Your task to perform on an android device: Go to internet settings Image 0: 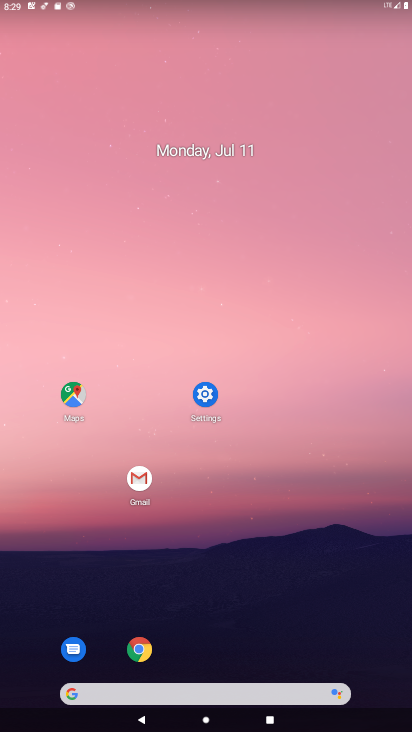
Step 0: click (204, 392)
Your task to perform on an android device: Go to internet settings Image 1: 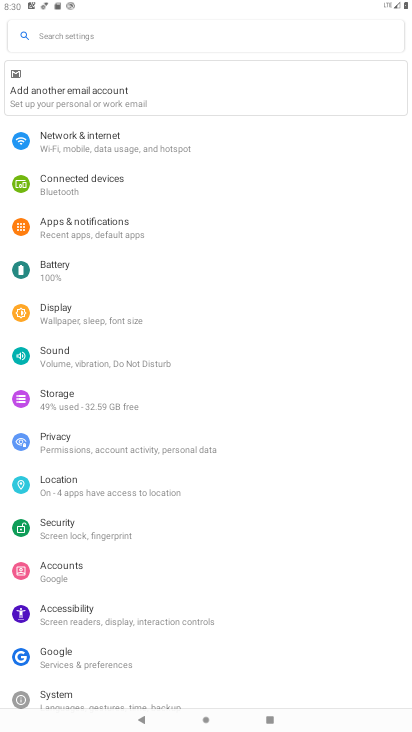
Step 1: click (91, 147)
Your task to perform on an android device: Go to internet settings Image 2: 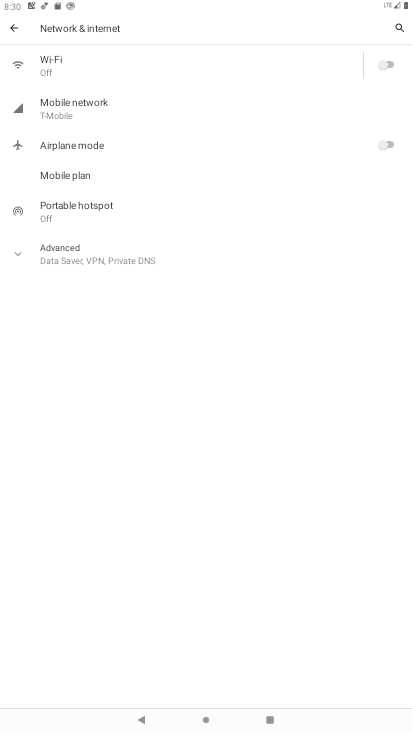
Step 2: click (71, 108)
Your task to perform on an android device: Go to internet settings Image 3: 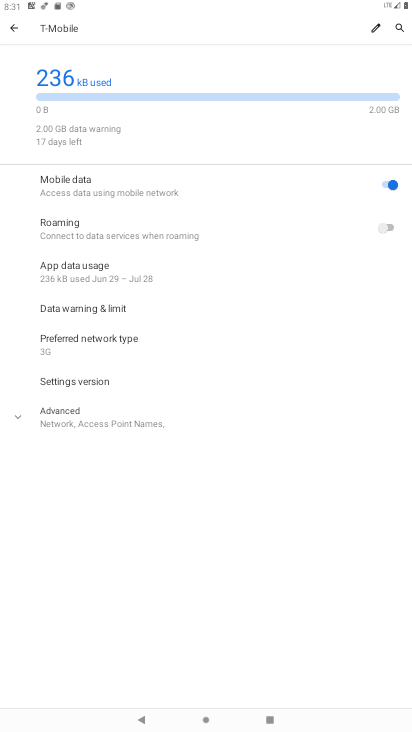
Step 3: task complete